Your task to perform on an android device: Play the last video I watched on Youtube Image 0: 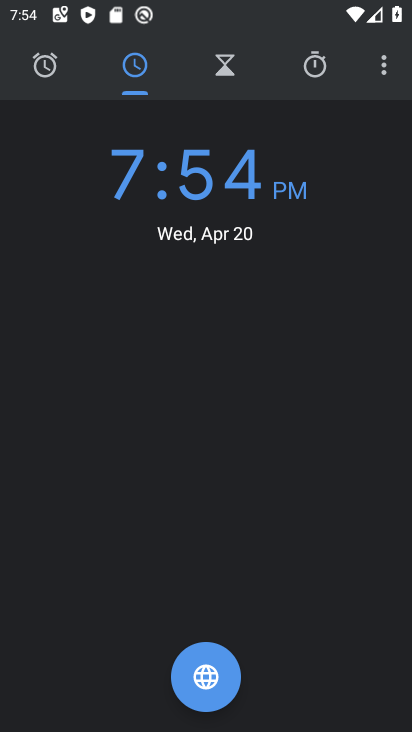
Step 0: press home button
Your task to perform on an android device: Play the last video I watched on Youtube Image 1: 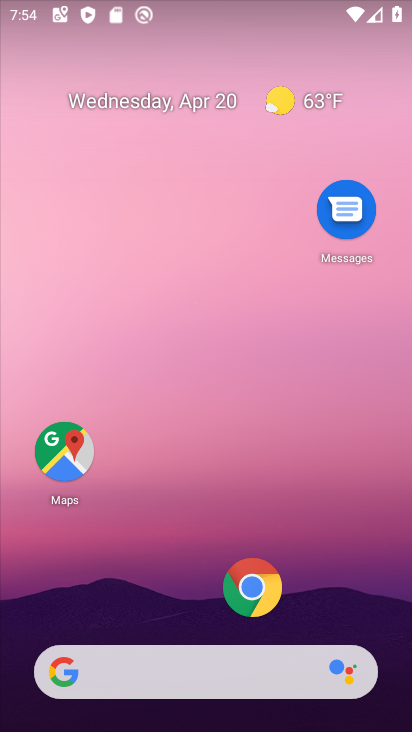
Step 1: drag from (161, 655) to (292, 113)
Your task to perform on an android device: Play the last video I watched on Youtube Image 2: 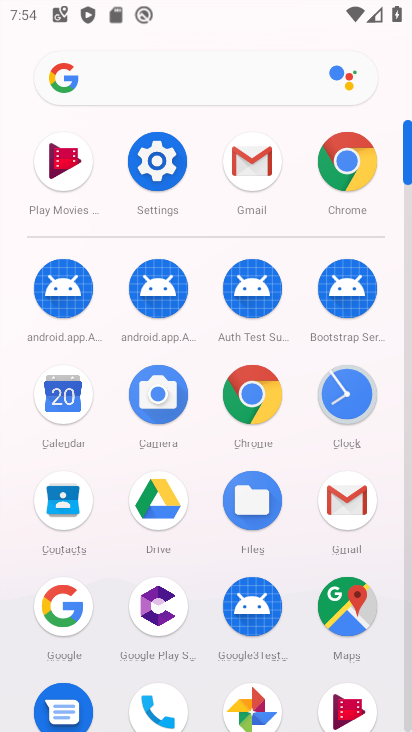
Step 2: drag from (206, 635) to (339, 127)
Your task to perform on an android device: Play the last video I watched on Youtube Image 3: 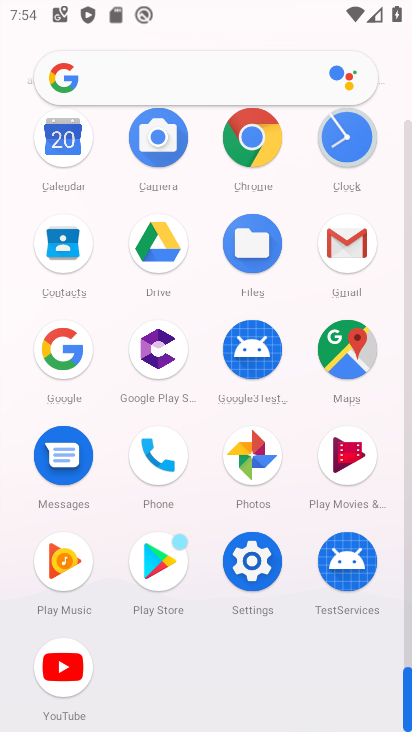
Step 3: click (61, 668)
Your task to perform on an android device: Play the last video I watched on Youtube Image 4: 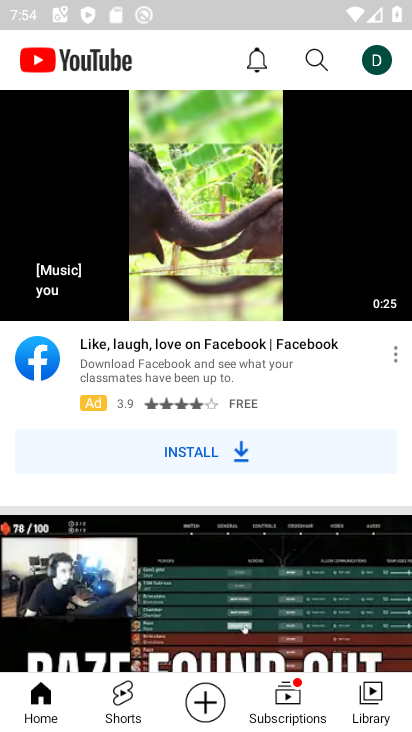
Step 4: click (372, 699)
Your task to perform on an android device: Play the last video I watched on Youtube Image 5: 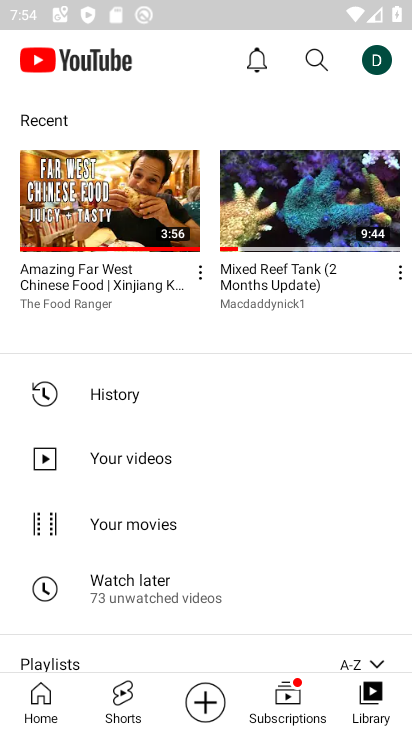
Step 5: click (89, 196)
Your task to perform on an android device: Play the last video I watched on Youtube Image 6: 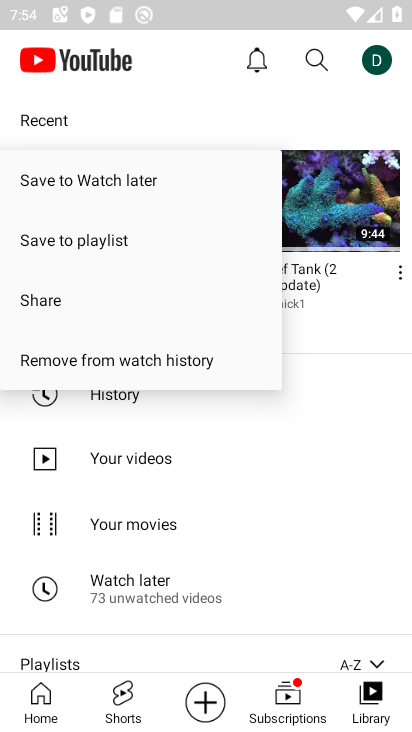
Step 6: click (116, 399)
Your task to perform on an android device: Play the last video I watched on Youtube Image 7: 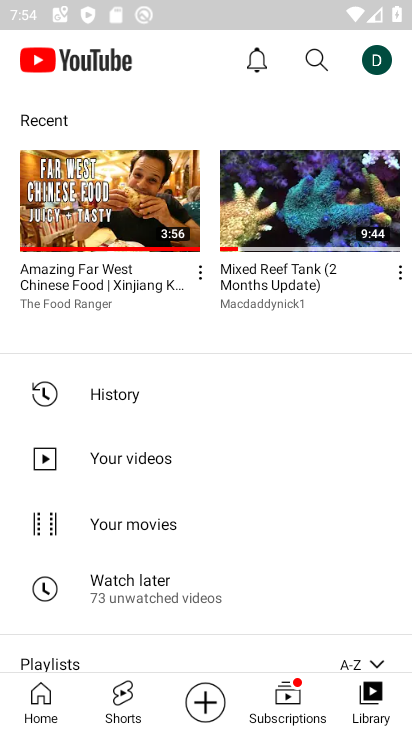
Step 7: click (117, 390)
Your task to perform on an android device: Play the last video I watched on Youtube Image 8: 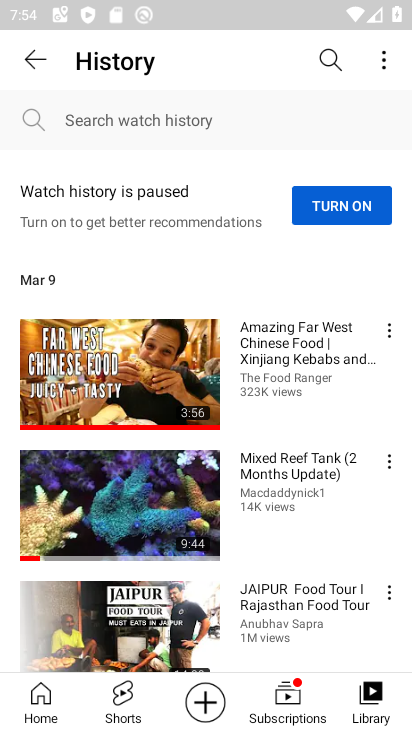
Step 8: click (118, 372)
Your task to perform on an android device: Play the last video I watched on Youtube Image 9: 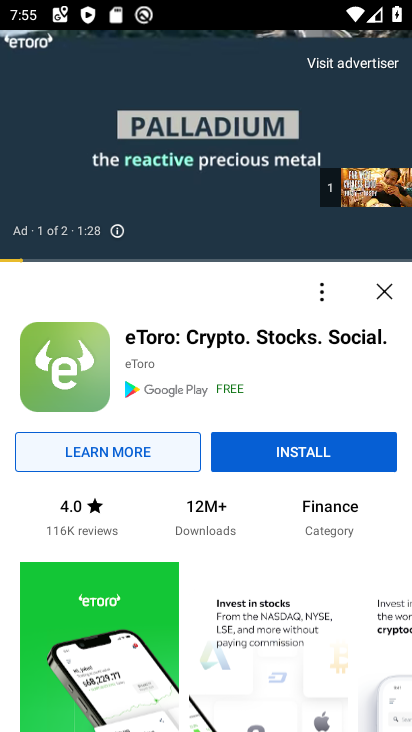
Step 9: task complete